Your task to perform on an android device: Go to Reddit.com Image 0: 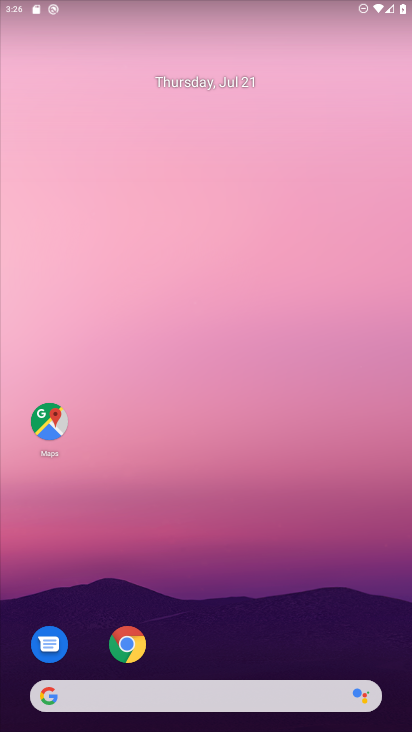
Step 0: click (131, 633)
Your task to perform on an android device: Go to Reddit.com Image 1: 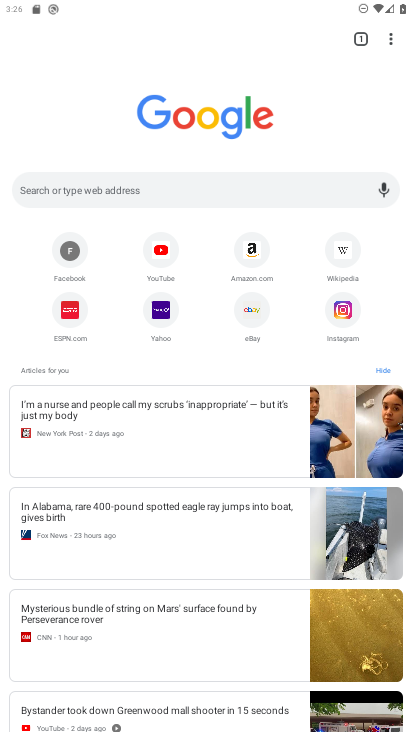
Step 1: click (235, 176)
Your task to perform on an android device: Go to Reddit.com Image 2: 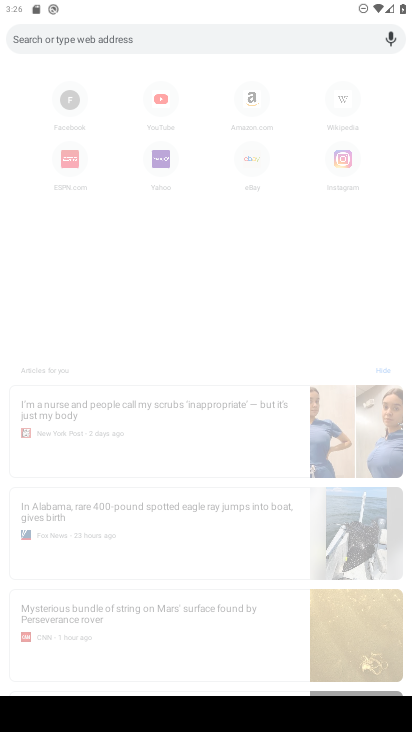
Step 2: type "Reddit.com"
Your task to perform on an android device: Go to Reddit.com Image 3: 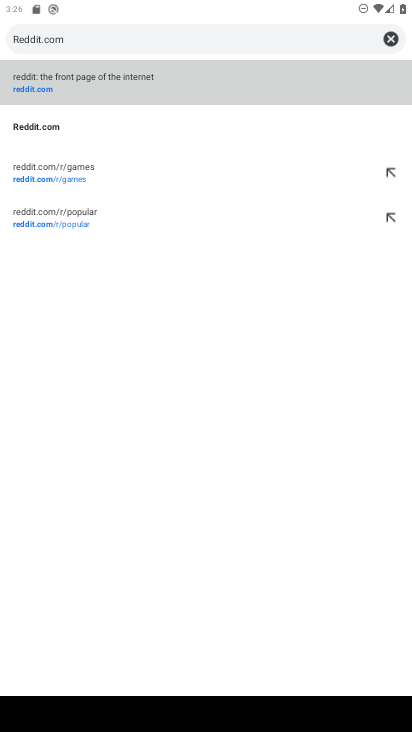
Step 3: click (79, 76)
Your task to perform on an android device: Go to Reddit.com Image 4: 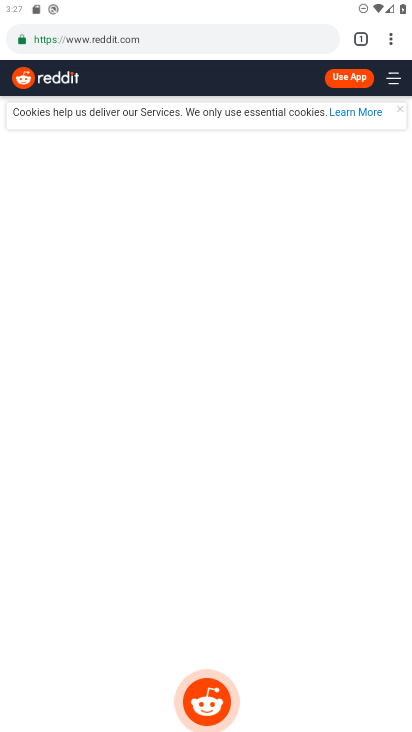
Step 4: task complete